Your task to perform on an android device: Open Google Maps Image 0: 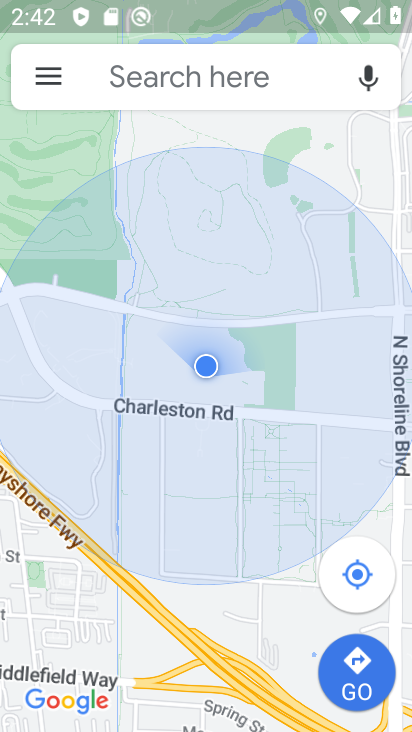
Step 0: task complete